Your task to perform on an android device: find snoozed emails in the gmail app Image 0: 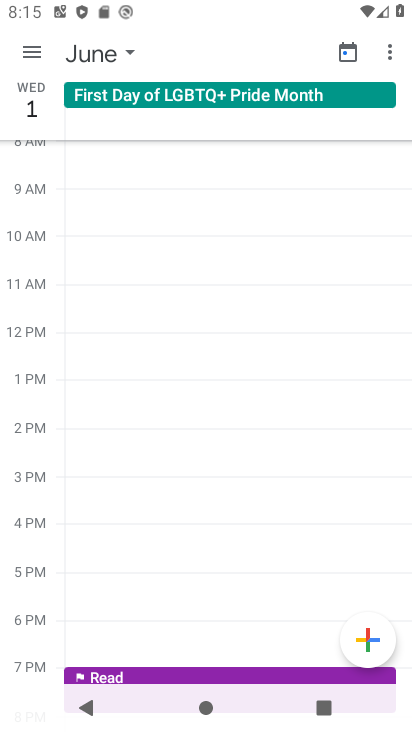
Step 0: press home button
Your task to perform on an android device: find snoozed emails in the gmail app Image 1: 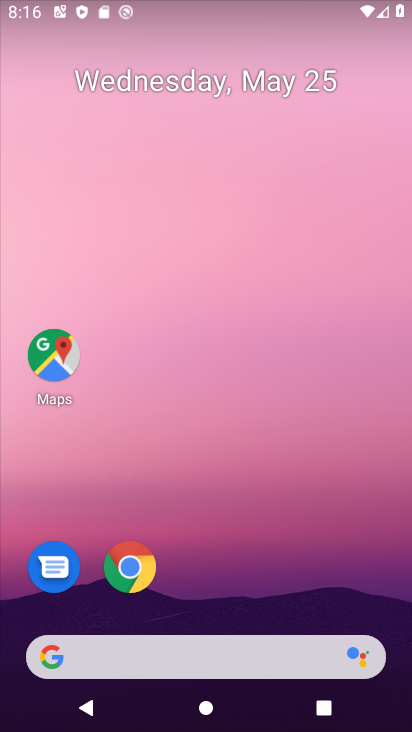
Step 1: drag from (254, 588) to (392, 2)
Your task to perform on an android device: find snoozed emails in the gmail app Image 2: 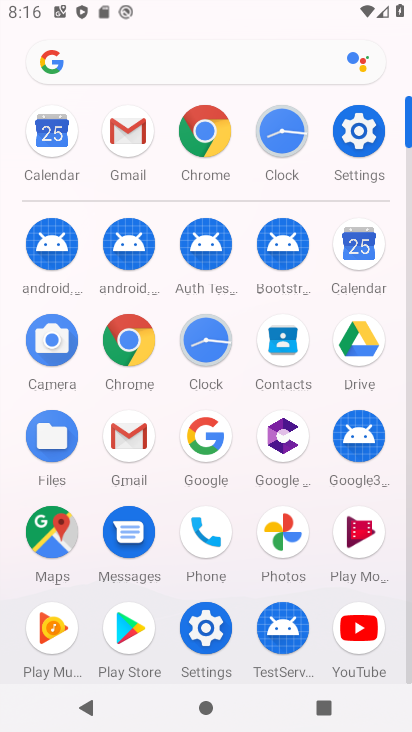
Step 2: click (141, 165)
Your task to perform on an android device: find snoozed emails in the gmail app Image 3: 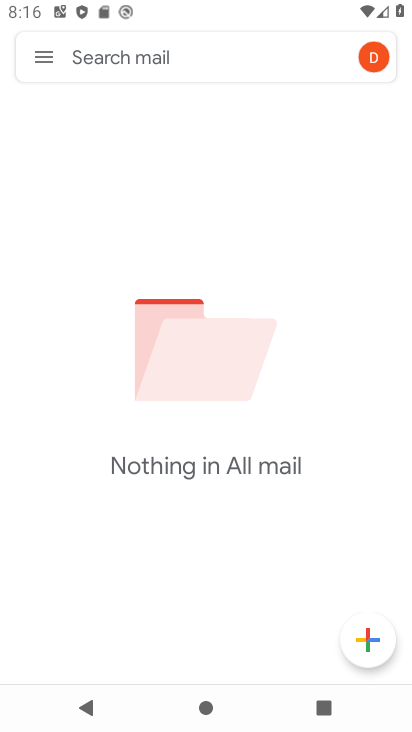
Step 3: task complete